Your task to perform on an android device: turn off notifications settings in the gmail app Image 0: 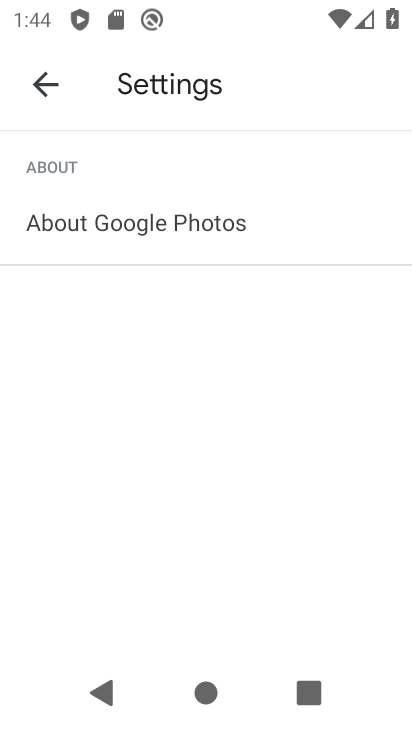
Step 0: press back button
Your task to perform on an android device: turn off notifications settings in the gmail app Image 1: 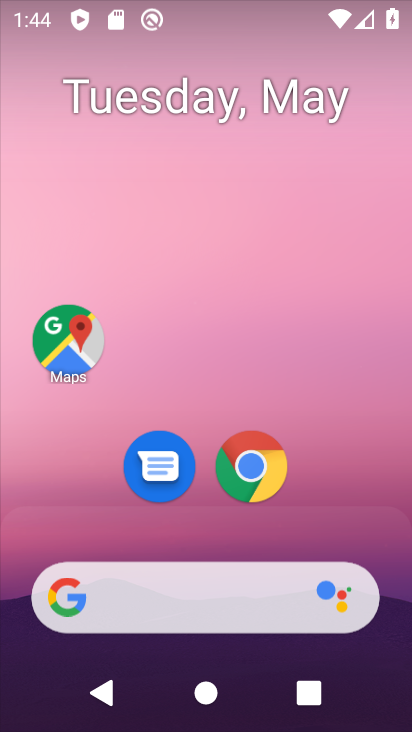
Step 1: drag from (149, 577) to (355, 17)
Your task to perform on an android device: turn off notifications settings in the gmail app Image 2: 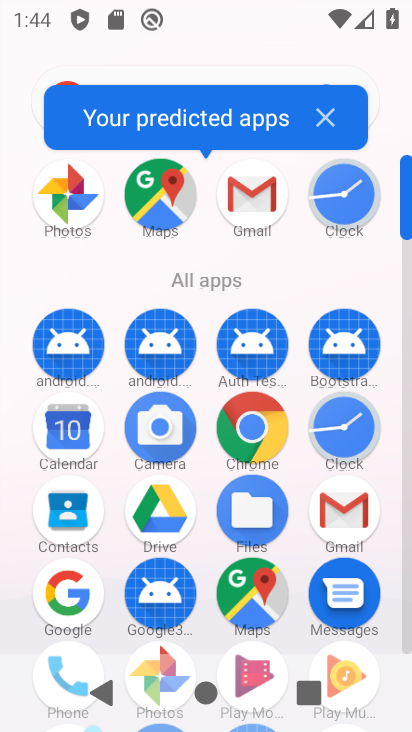
Step 2: drag from (155, 628) to (260, 315)
Your task to perform on an android device: turn off notifications settings in the gmail app Image 3: 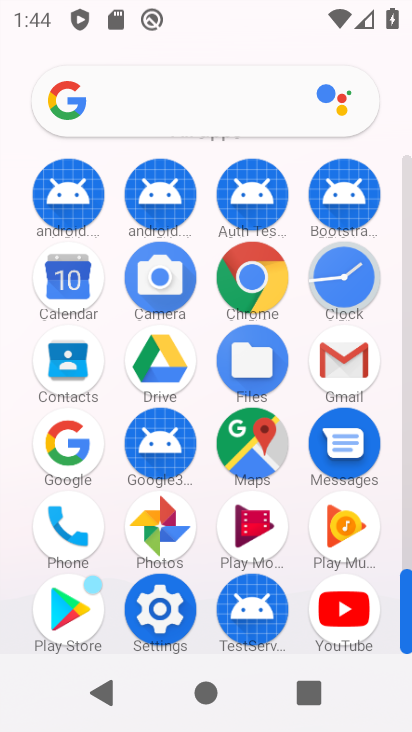
Step 3: click (350, 381)
Your task to perform on an android device: turn off notifications settings in the gmail app Image 4: 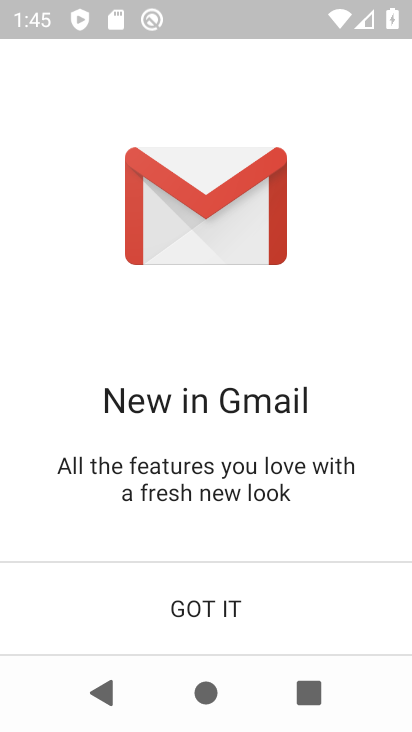
Step 4: click (161, 599)
Your task to perform on an android device: turn off notifications settings in the gmail app Image 5: 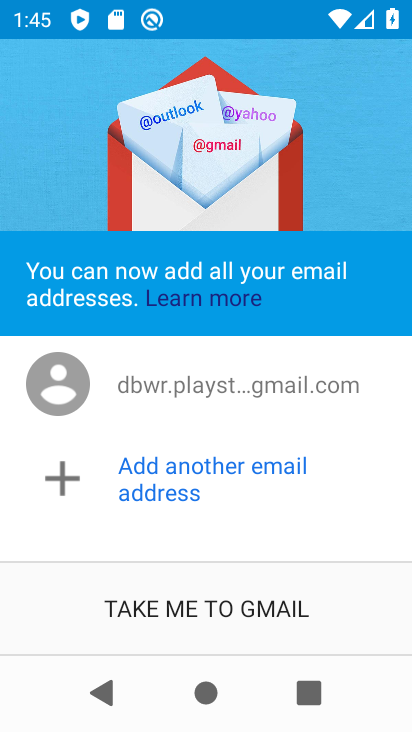
Step 5: click (263, 599)
Your task to perform on an android device: turn off notifications settings in the gmail app Image 6: 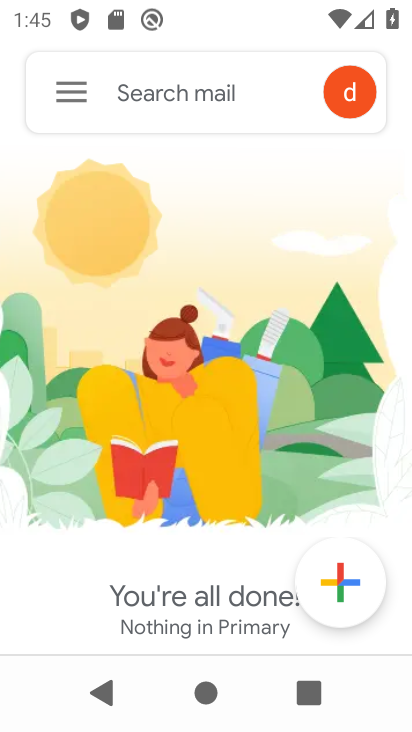
Step 6: click (69, 85)
Your task to perform on an android device: turn off notifications settings in the gmail app Image 7: 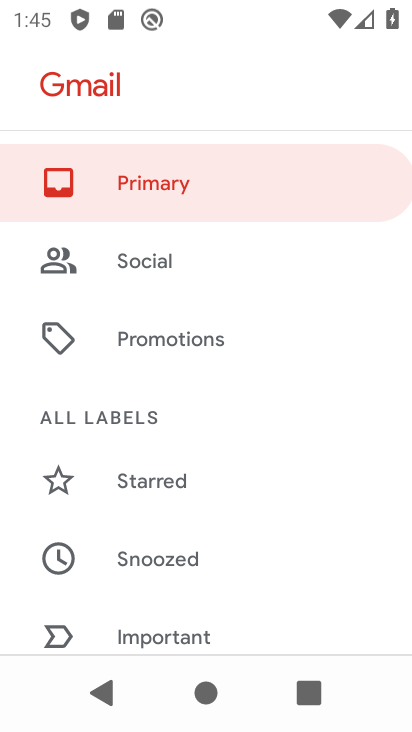
Step 7: drag from (183, 585) to (329, 109)
Your task to perform on an android device: turn off notifications settings in the gmail app Image 8: 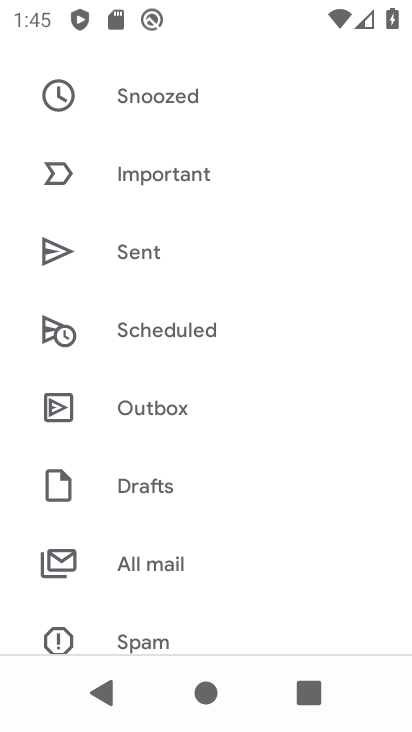
Step 8: drag from (193, 589) to (288, 200)
Your task to perform on an android device: turn off notifications settings in the gmail app Image 9: 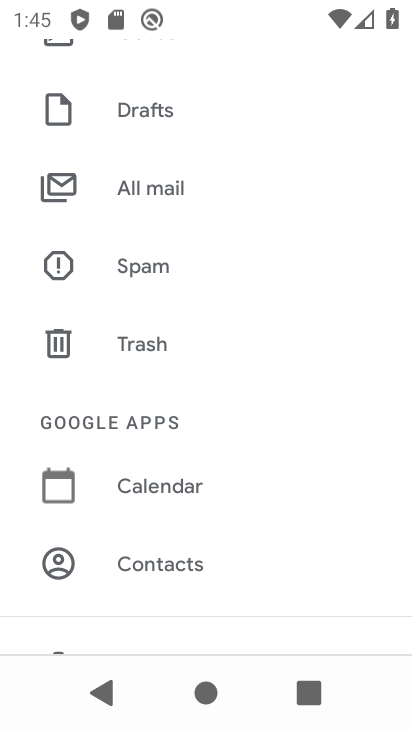
Step 9: drag from (204, 521) to (290, 221)
Your task to perform on an android device: turn off notifications settings in the gmail app Image 10: 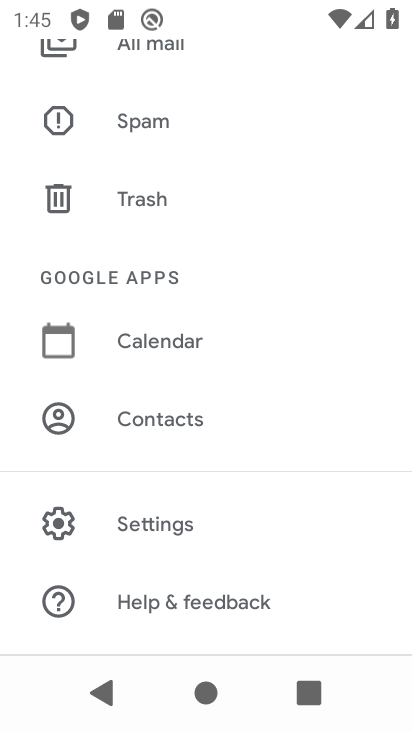
Step 10: click (154, 549)
Your task to perform on an android device: turn off notifications settings in the gmail app Image 11: 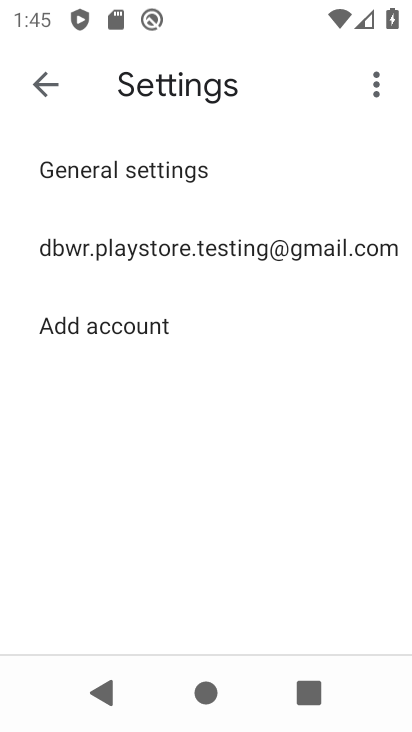
Step 11: click (255, 259)
Your task to perform on an android device: turn off notifications settings in the gmail app Image 12: 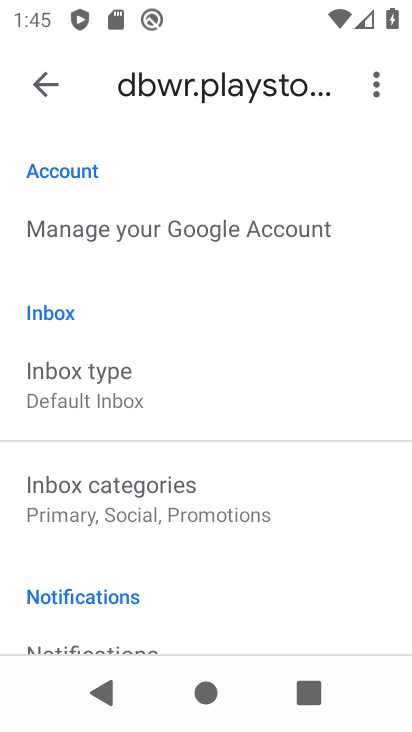
Step 12: drag from (158, 588) to (267, 239)
Your task to perform on an android device: turn off notifications settings in the gmail app Image 13: 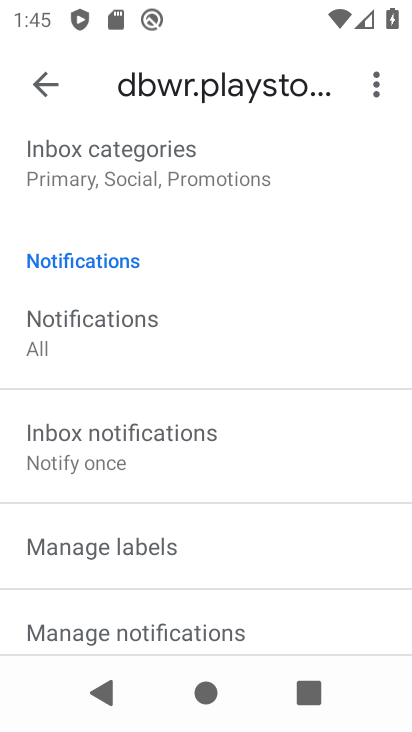
Step 13: drag from (188, 626) to (221, 408)
Your task to perform on an android device: turn off notifications settings in the gmail app Image 14: 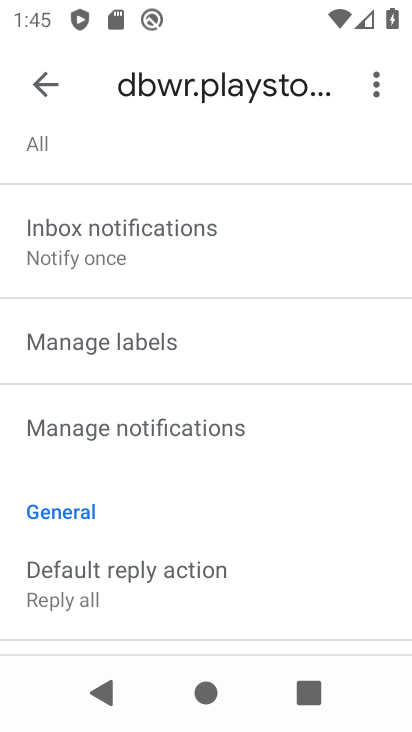
Step 14: click (191, 431)
Your task to perform on an android device: turn off notifications settings in the gmail app Image 15: 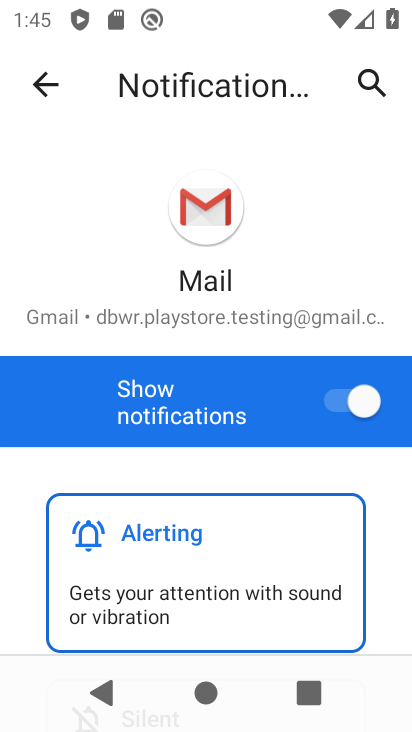
Step 15: click (331, 395)
Your task to perform on an android device: turn off notifications settings in the gmail app Image 16: 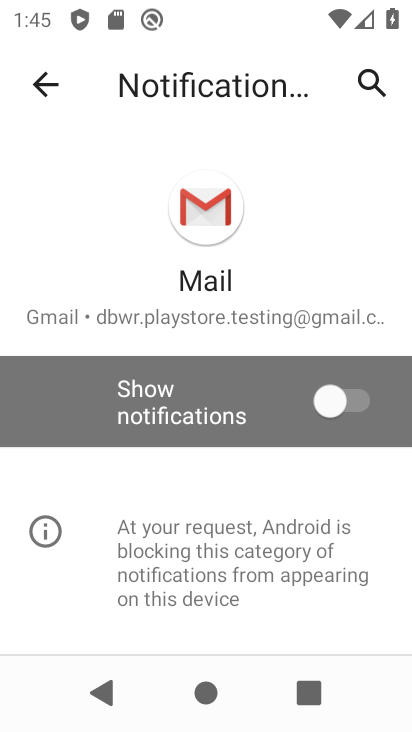
Step 16: task complete